Your task to perform on an android device: turn on improve location accuracy Image 0: 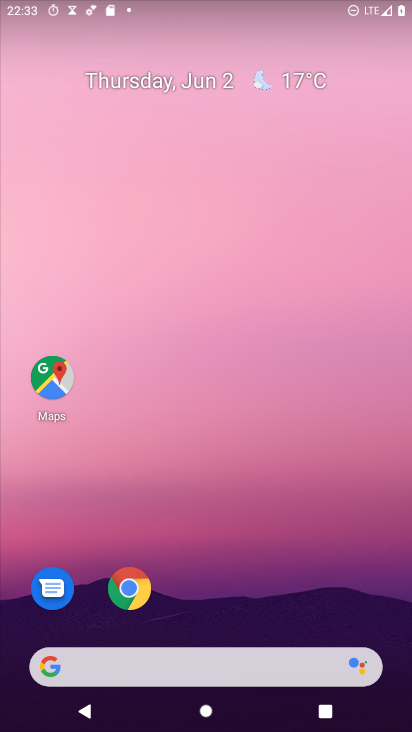
Step 0: drag from (238, 602) to (265, 133)
Your task to perform on an android device: turn on improve location accuracy Image 1: 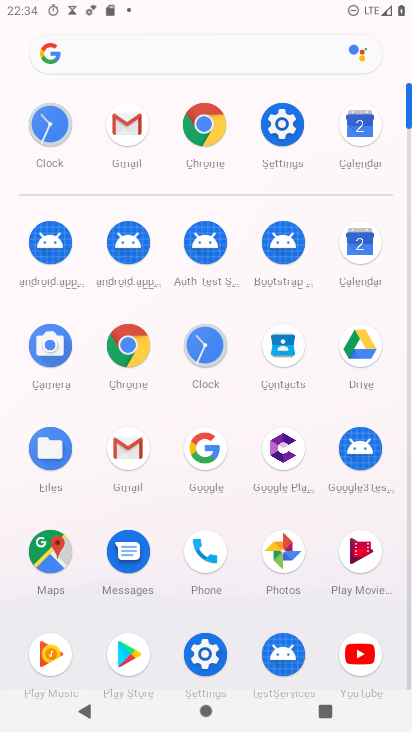
Step 1: click (293, 128)
Your task to perform on an android device: turn on improve location accuracy Image 2: 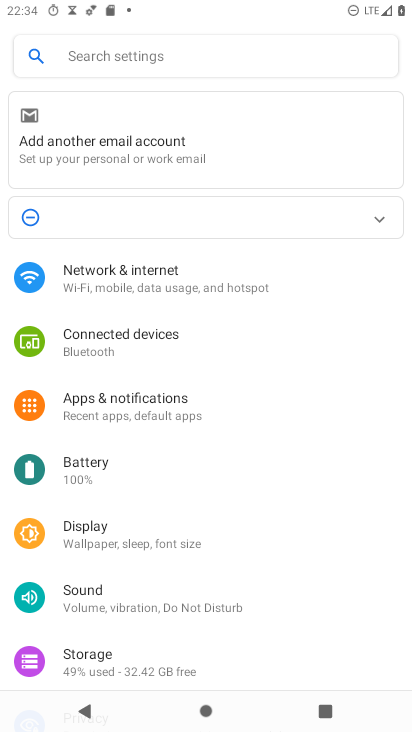
Step 2: drag from (160, 611) to (221, 162)
Your task to perform on an android device: turn on improve location accuracy Image 3: 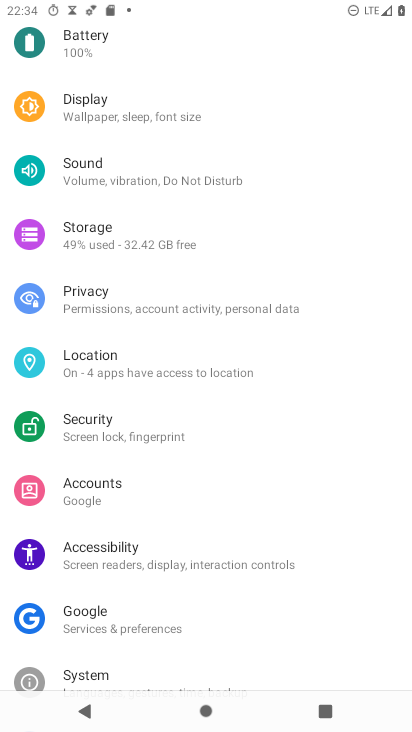
Step 3: click (142, 364)
Your task to perform on an android device: turn on improve location accuracy Image 4: 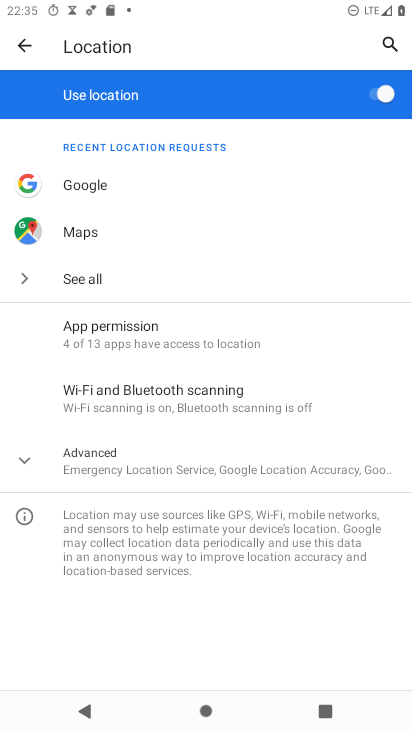
Step 4: click (143, 469)
Your task to perform on an android device: turn on improve location accuracy Image 5: 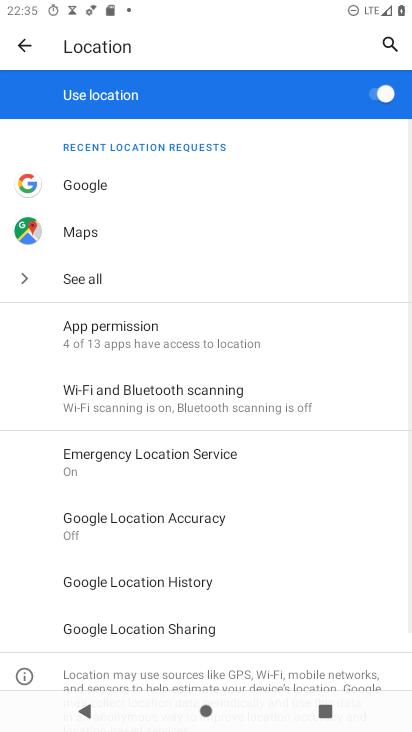
Step 5: click (88, 522)
Your task to perform on an android device: turn on improve location accuracy Image 6: 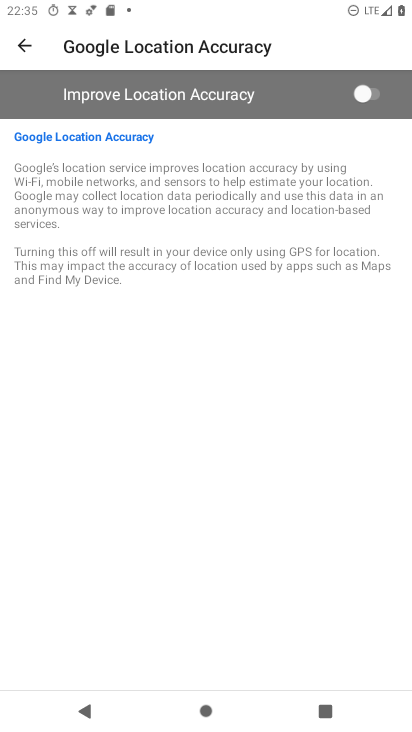
Step 6: click (371, 88)
Your task to perform on an android device: turn on improve location accuracy Image 7: 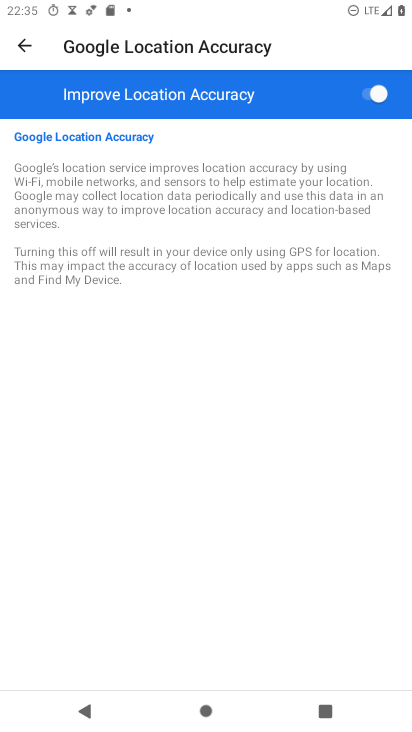
Step 7: task complete